Your task to perform on an android device: Go to Wikipedia Image 0: 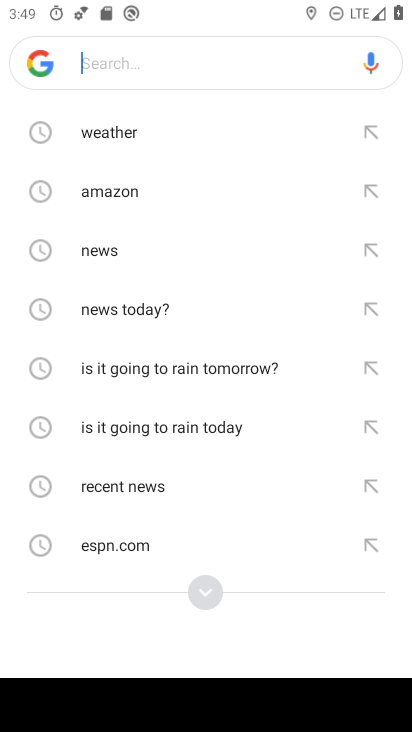
Step 0: press home button
Your task to perform on an android device: Go to Wikipedia Image 1: 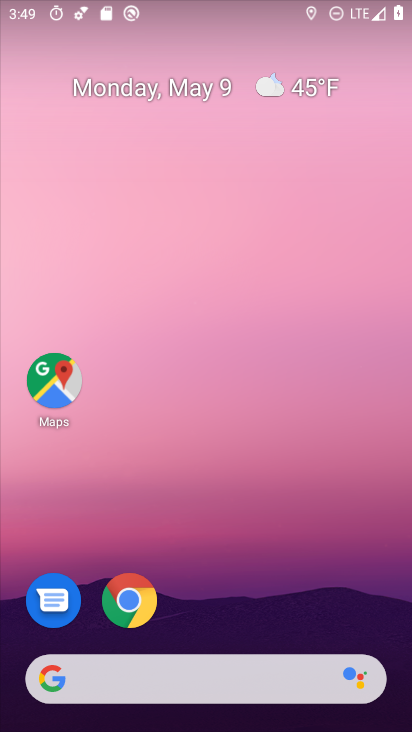
Step 1: click (137, 581)
Your task to perform on an android device: Go to Wikipedia Image 2: 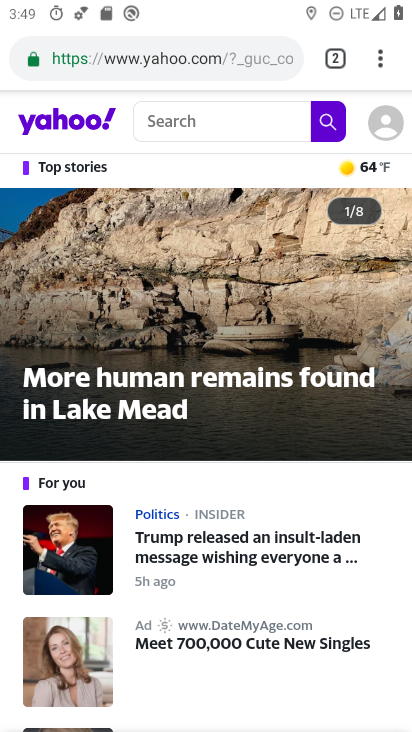
Step 2: click (215, 59)
Your task to perform on an android device: Go to Wikipedia Image 3: 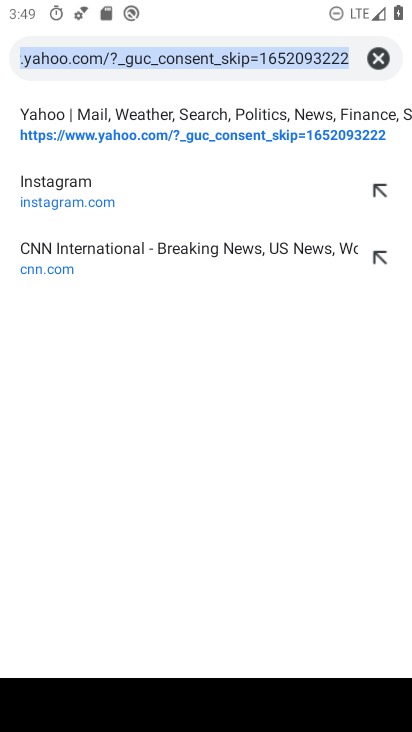
Step 3: type "wikipedia"
Your task to perform on an android device: Go to Wikipedia Image 4: 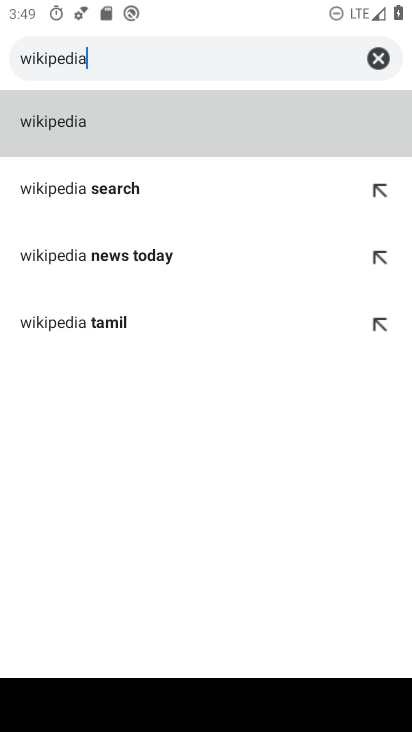
Step 4: click (91, 133)
Your task to perform on an android device: Go to Wikipedia Image 5: 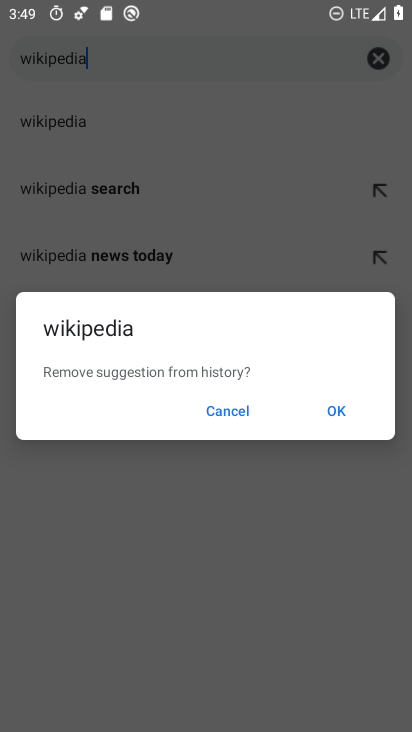
Step 5: click (217, 412)
Your task to perform on an android device: Go to Wikipedia Image 6: 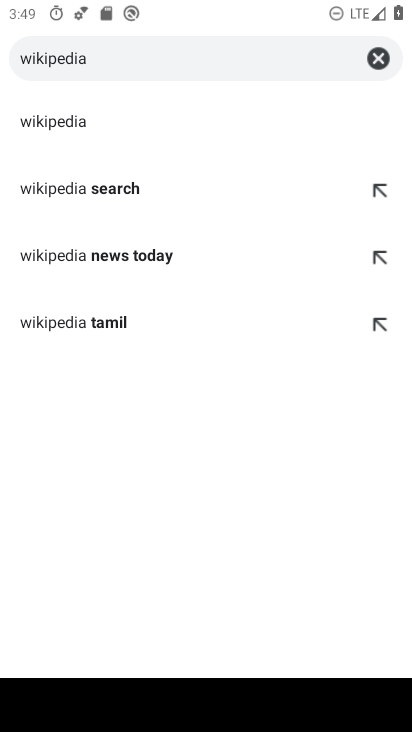
Step 6: click (94, 118)
Your task to perform on an android device: Go to Wikipedia Image 7: 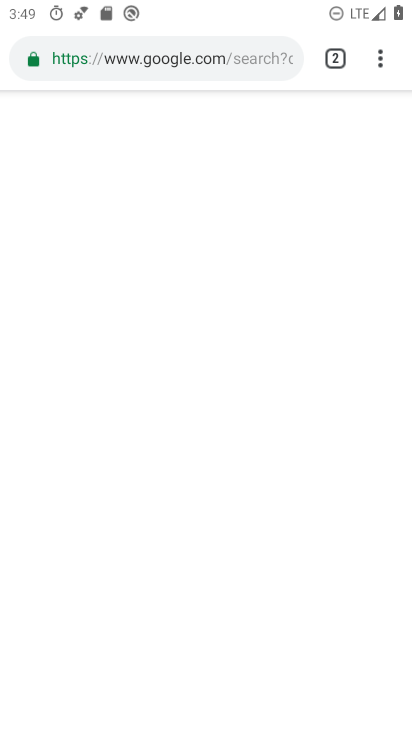
Step 7: task complete